Your task to perform on an android device: Open Chrome and go to the settings page Image 0: 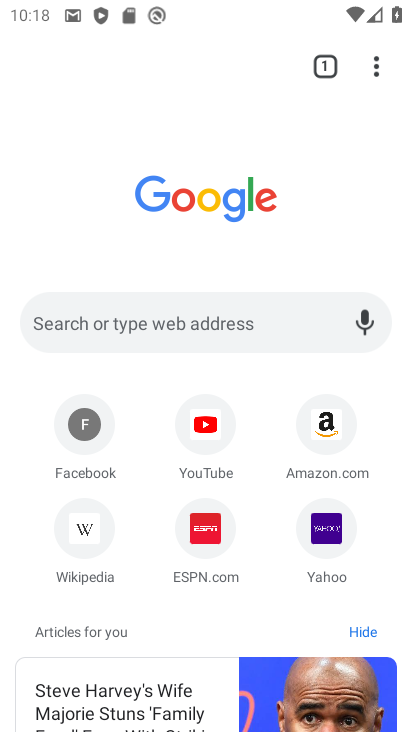
Step 0: click (374, 68)
Your task to perform on an android device: Open Chrome and go to the settings page Image 1: 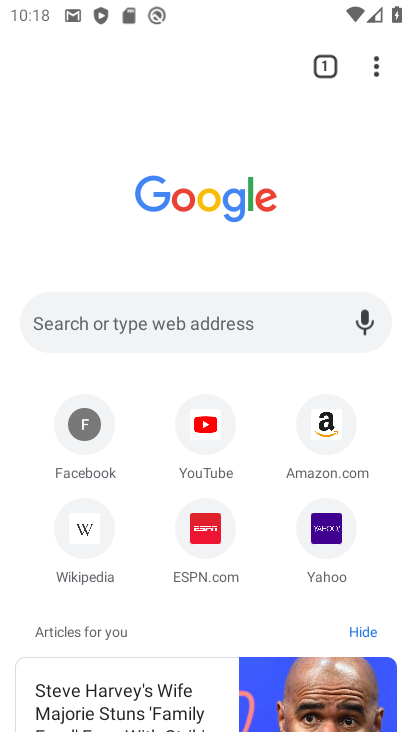
Step 1: click (370, 78)
Your task to perform on an android device: Open Chrome and go to the settings page Image 2: 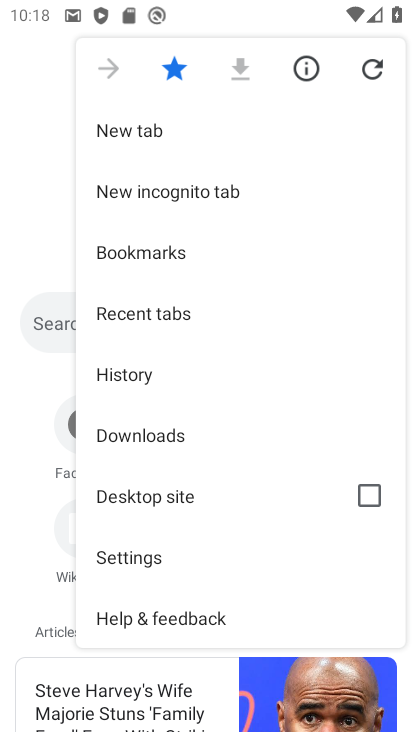
Step 2: click (131, 558)
Your task to perform on an android device: Open Chrome and go to the settings page Image 3: 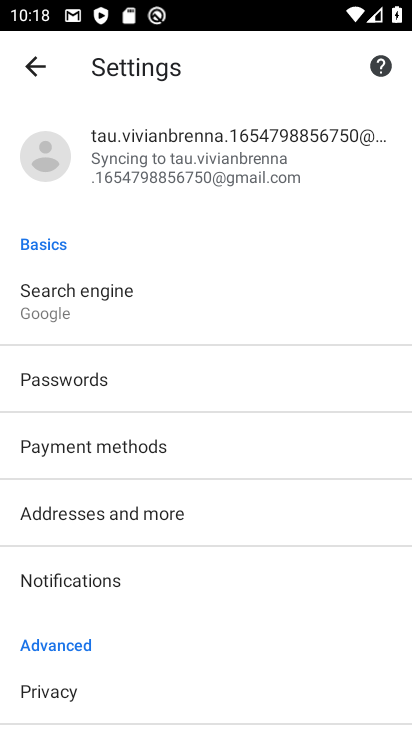
Step 3: task complete